Your task to perform on an android device: toggle translation in the chrome app Image 0: 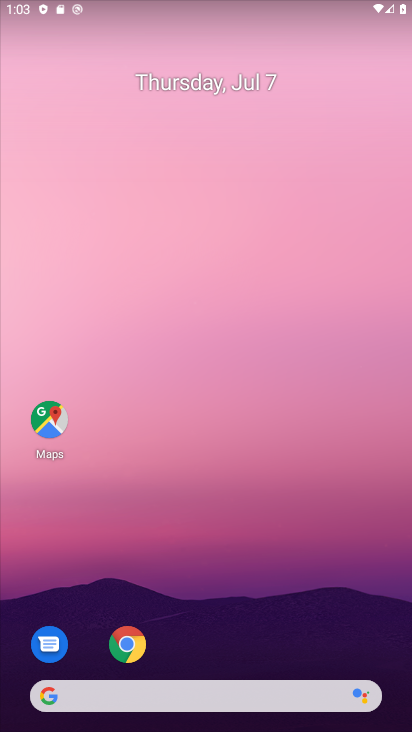
Step 0: click (290, 543)
Your task to perform on an android device: toggle translation in the chrome app Image 1: 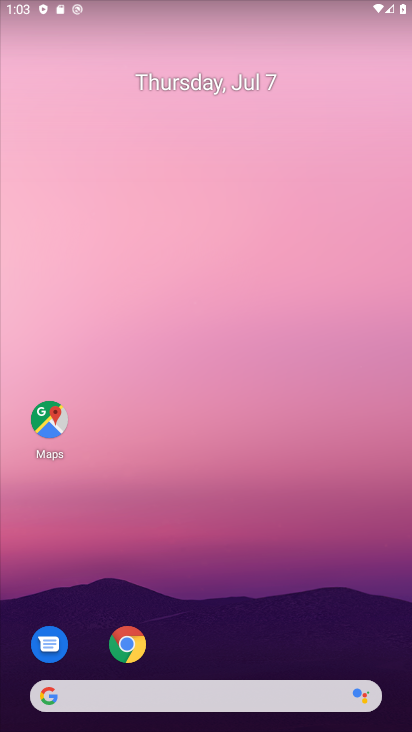
Step 1: click (125, 645)
Your task to perform on an android device: toggle translation in the chrome app Image 2: 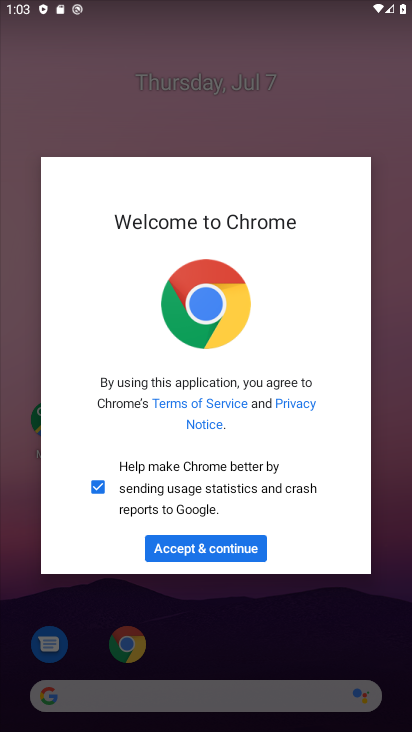
Step 2: click (200, 546)
Your task to perform on an android device: toggle translation in the chrome app Image 3: 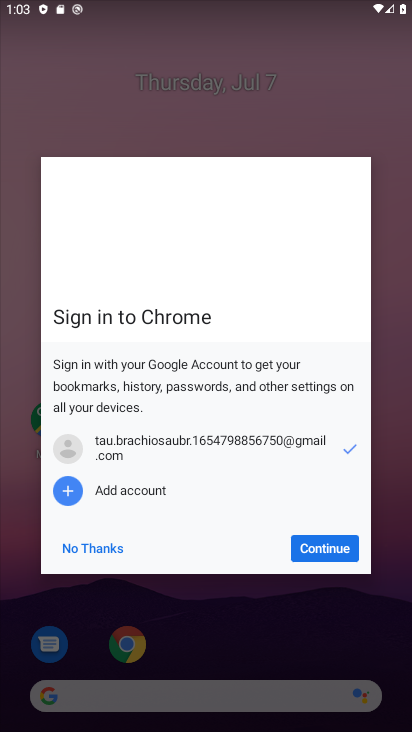
Step 3: click (311, 548)
Your task to perform on an android device: toggle translation in the chrome app Image 4: 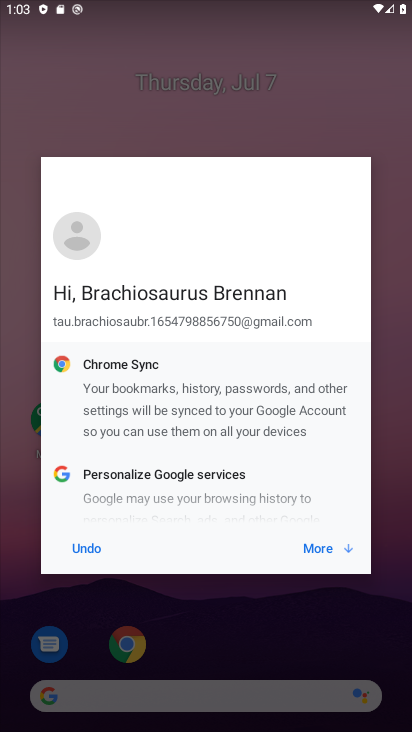
Step 4: click (311, 548)
Your task to perform on an android device: toggle translation in the chrome app Image 5: 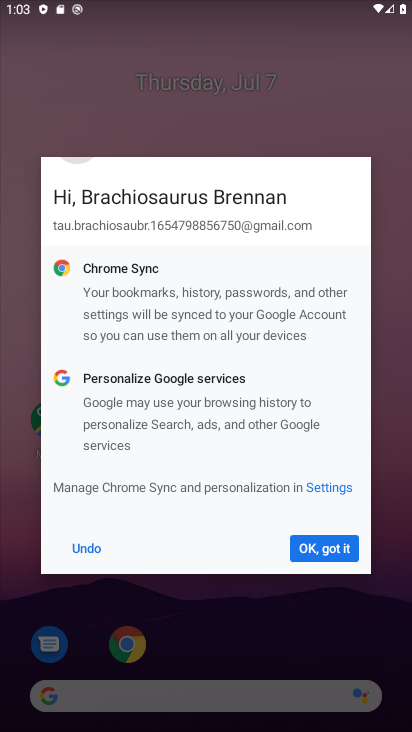
Step 5: click (311, 548)
Your task to perform on an android device: toggle translation in the chrome app Image 6: 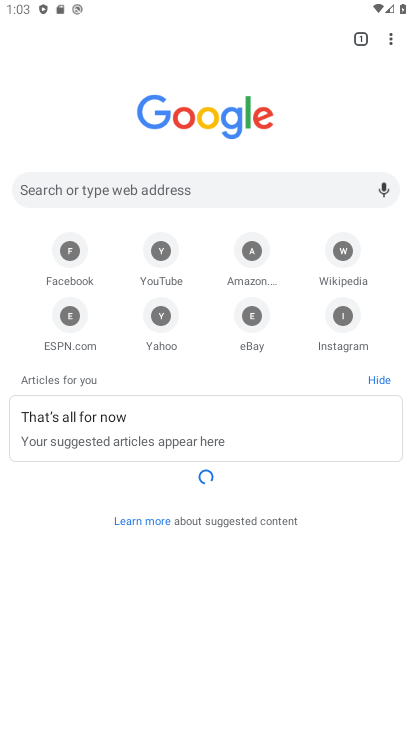
Step 6: click (390, 39)
Your task to perform on an android device: toggle translation in the chrome app Image 7: 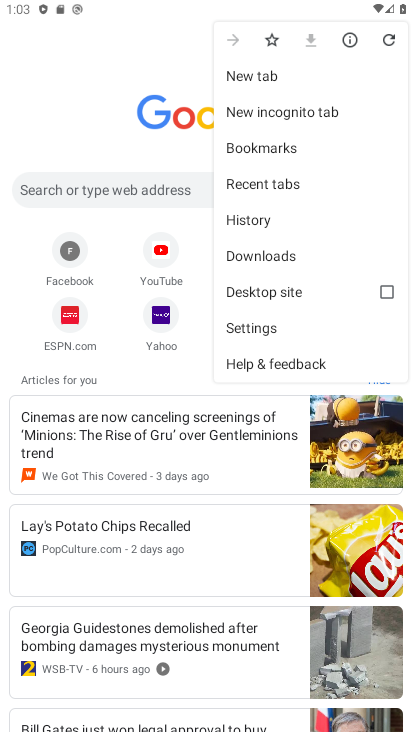
Step 7: click (257, 324)
Your task to perform on an android device: toggle translation in the chrome app Image 8: 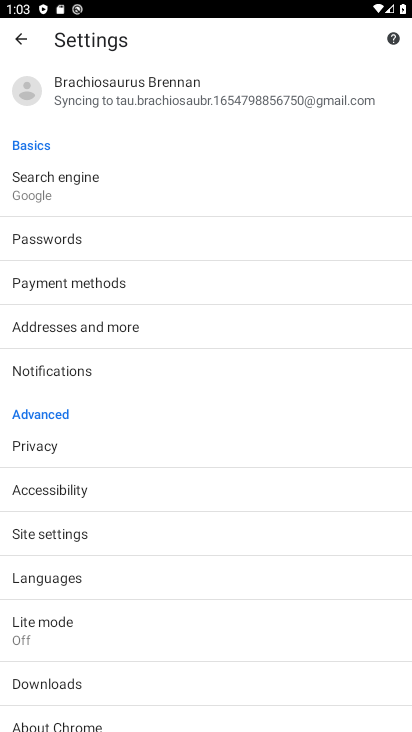
Step 8: click (73, 574)
Your task to perform on an android device: toggle translation in the chrome app Image 9: 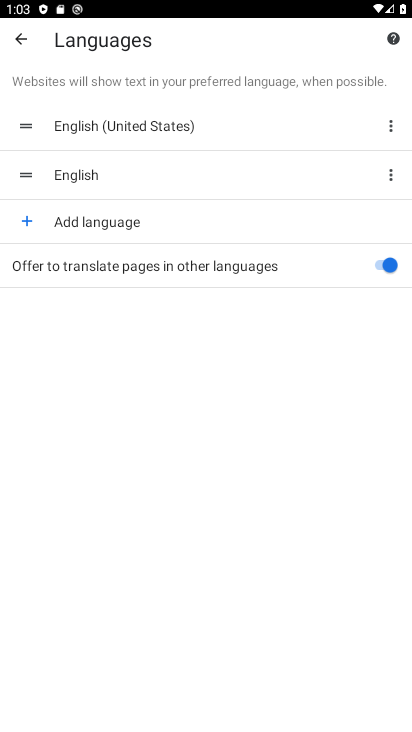
Step 9: click (391, 271)
Your task to perform on an android device: toggle translation in the chrome app Image 10: 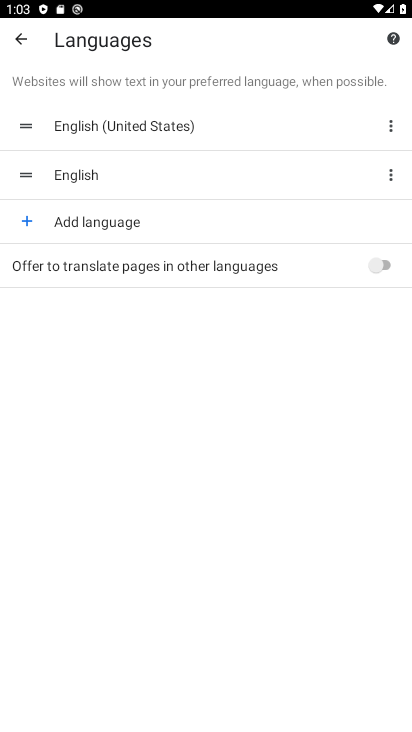
Step 10: task complete